Your task to perform on an android device: Search for vegetarian restaurants on Maps Image 0: 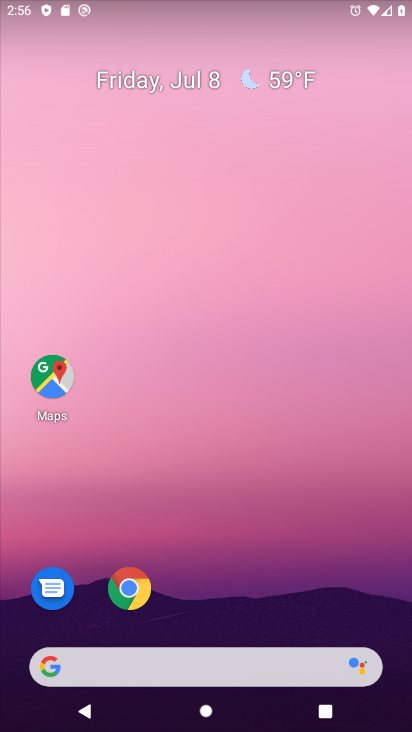
Step 0: drag from (205, 601) to (290, 170)
Your task to perform on an android device: Search for vegetarian restaurants on Maps Image 1: 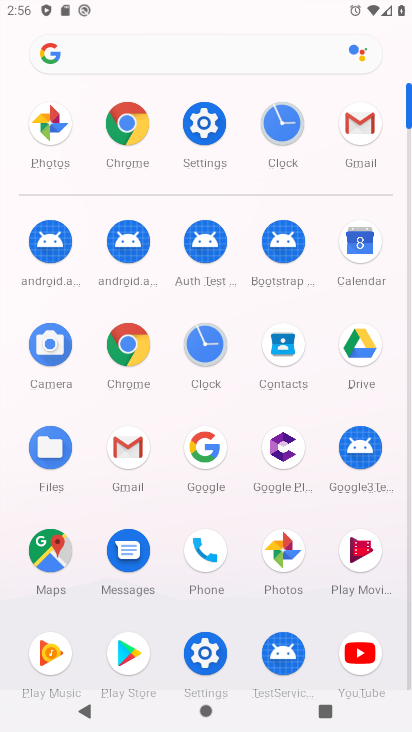
Step 1: click (137, 450)
Your task to perform on an android device: Search for vegetarian restaurants on Maps Image 2: 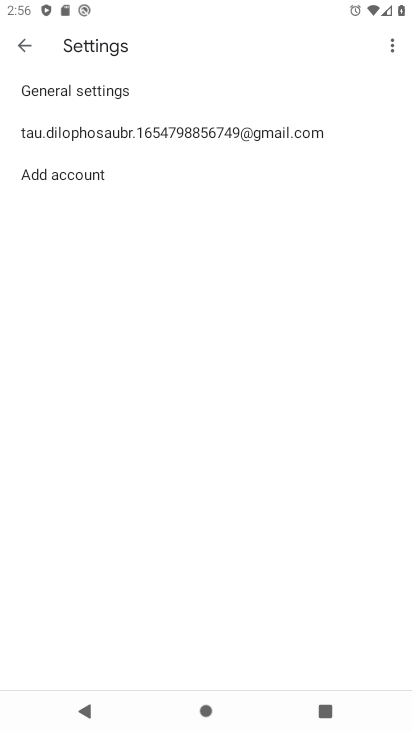
Step 2: press home button
Your task to perform on an android device: Search for vegetarian restaurants on Maps Image 3: 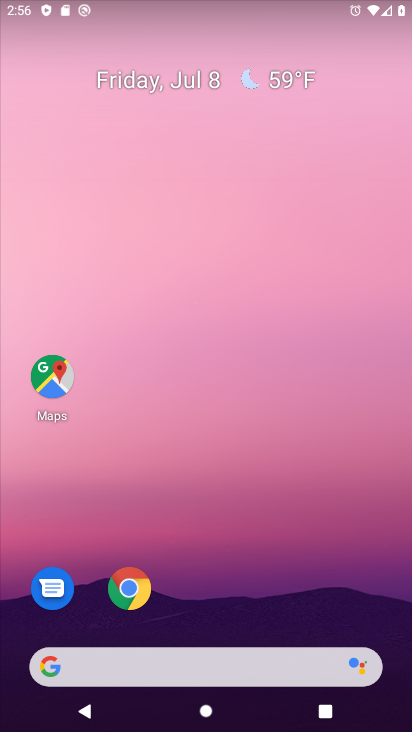
Step 3: click (62, 357)
Your task to perform on an android device: Search for vegetarian restaurants on Maps Image 4: 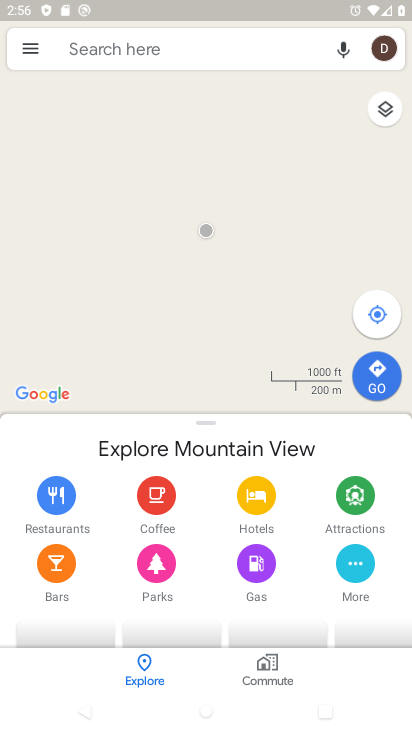
Step 4: click (216, 36)
Your task to perform on an android device: Search for vegetarian restaurants on Maps Image 5: 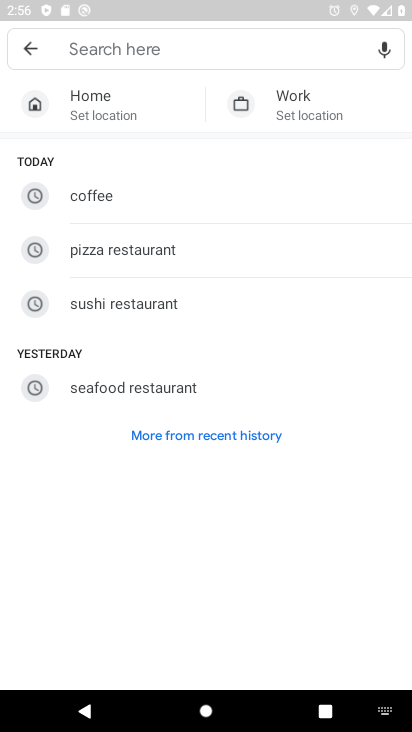
Step 5: type "vegetarian restaurants"
Your task to perform on an android device: Search for vegetarian restaurants on Maps Image 6: 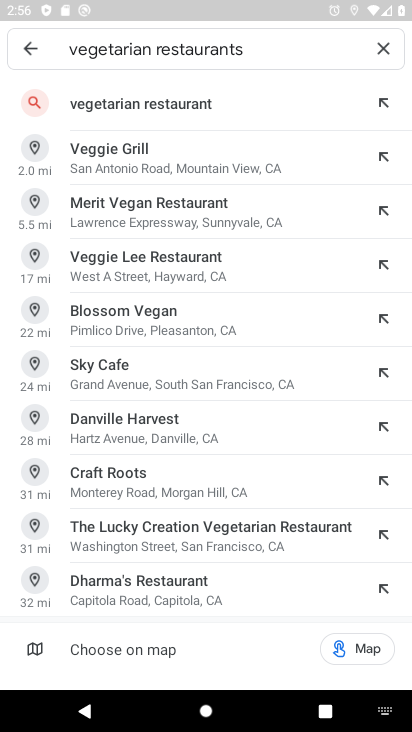
Step 6: click (136, 117)
Your task to perform on an android device: Search for vegetarian restaurants on Maps Image 7: 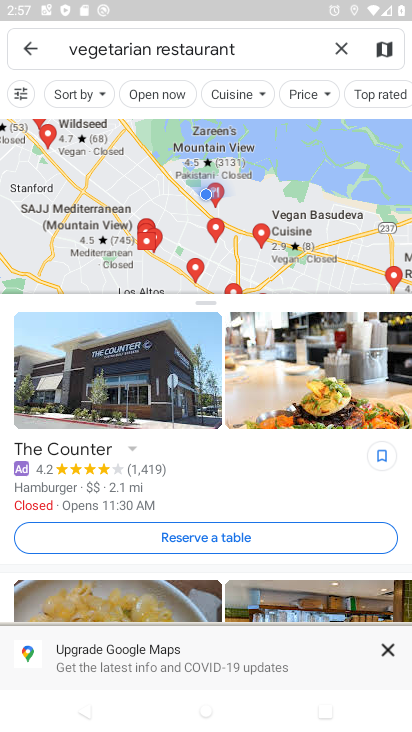
Step 7: task complete